Your task to perform on an android device: Go to internet settings Image 0: 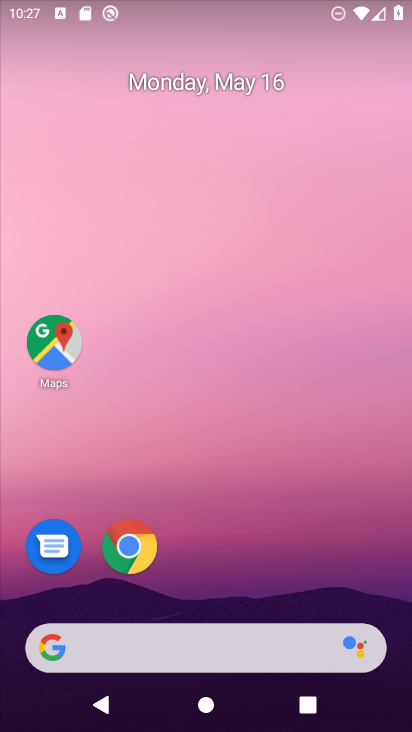
Step 0: drag from (209, 595) to (342, 2)
Your task to perform on an android device: Go to internet settings Image 1: 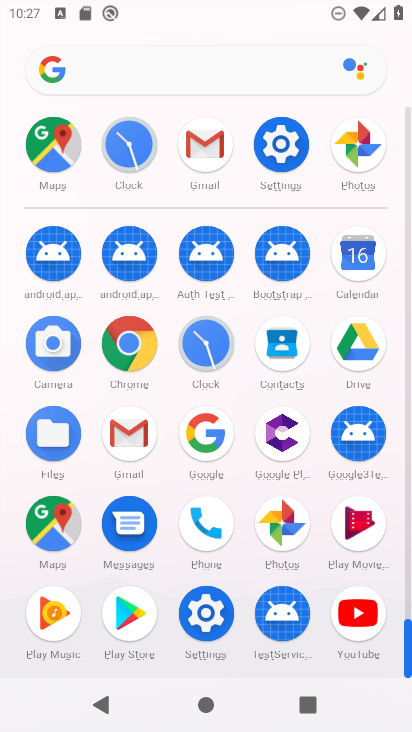
Step 1: click (281, 135)
Your task to perform on an android device: Go to internet settings Image 2: 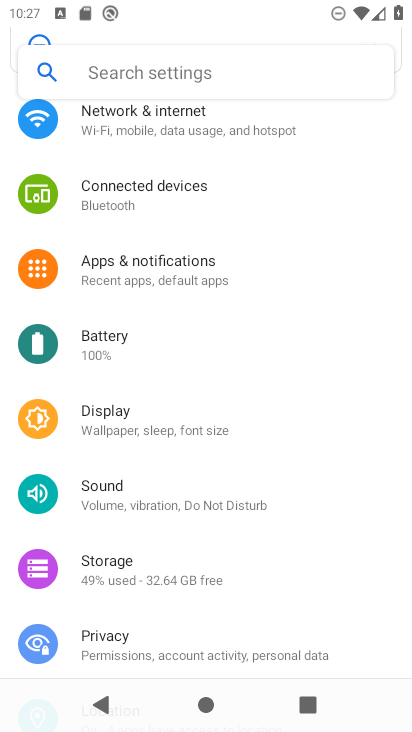
Step 2: click (281, 135)
Your task to perform on an android device: Go to internet settings Image 3: 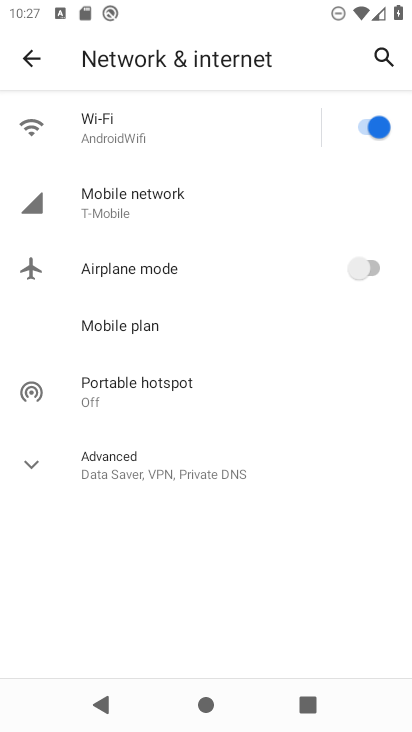
Step 3: click (174, 193)
Your task to perform on an android device: Go to internet settings Image 4: 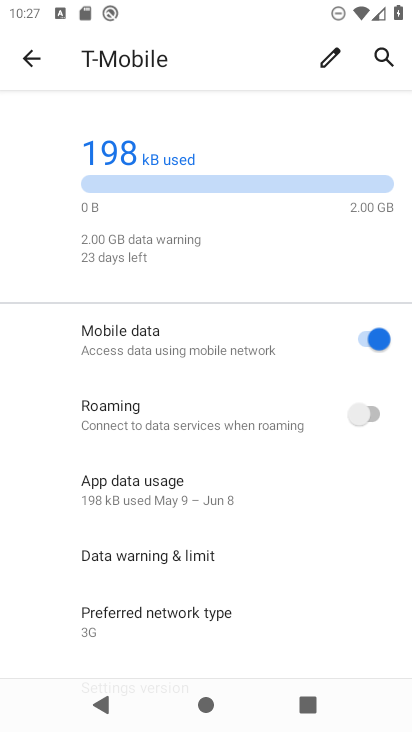
Step 4: task complete